Your task to perform on an android device: turn off notifications in google photos Image 0: 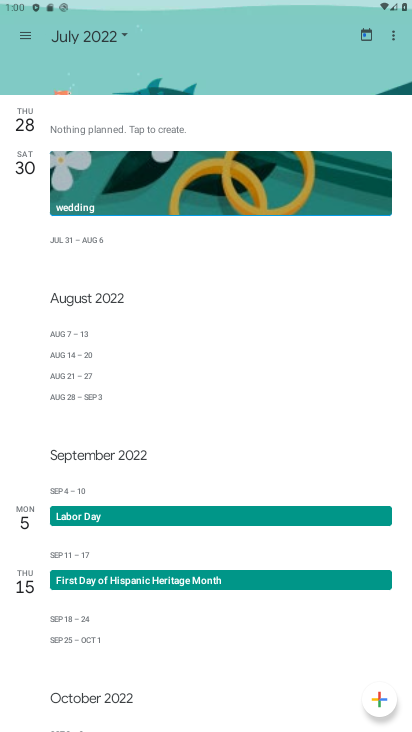
Step 0: press home button
Your task to perform on an android device: turn off notifications in google photos Image 1: 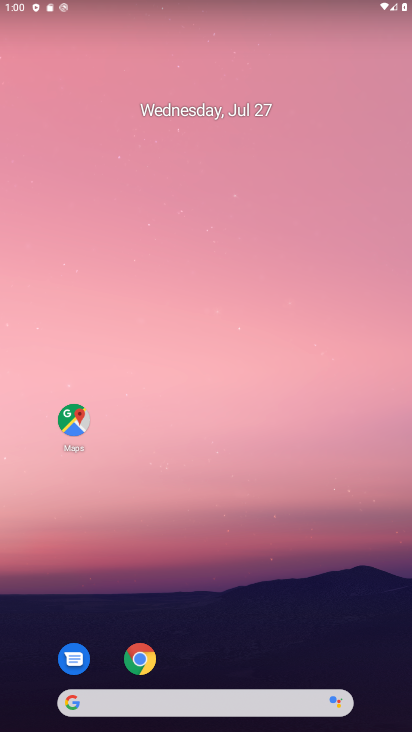
Step 1: drag from (305, 506) to (271, 10)
Your task to perform on an android device: turn off notifications in google photos Image 2: 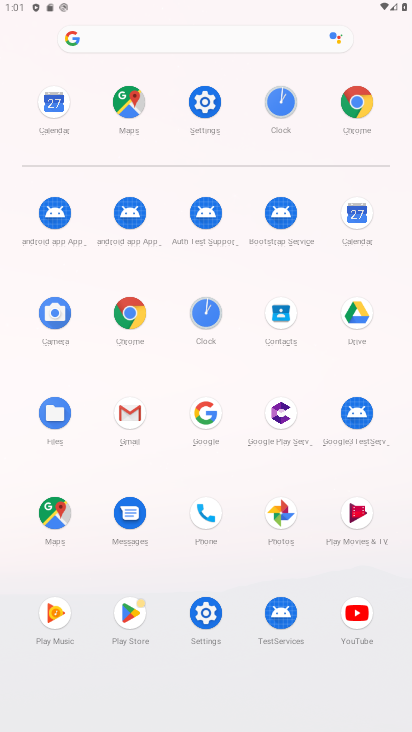
Step 2: click (278, 509)
Your task to perform on an android device: turn off notifications in google photos Image 3: 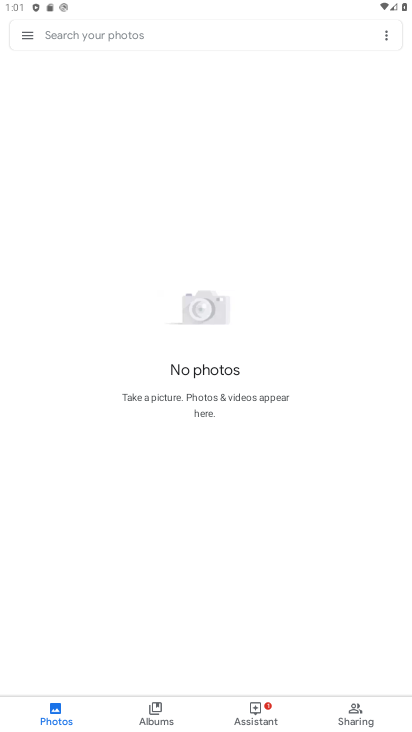
Step 3: click (24, 34)
Your task to perform on an android device: turn off notifications in google photos Image 4: 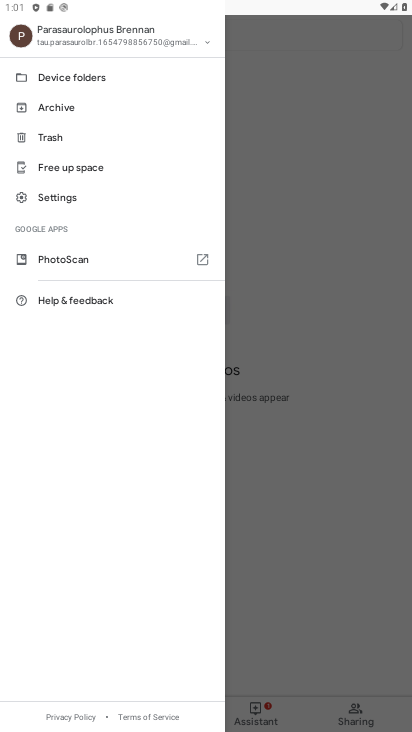
Step 4: click (54, 197)
Your task to perform on an android device: turn off notifications in google photos Image 5: 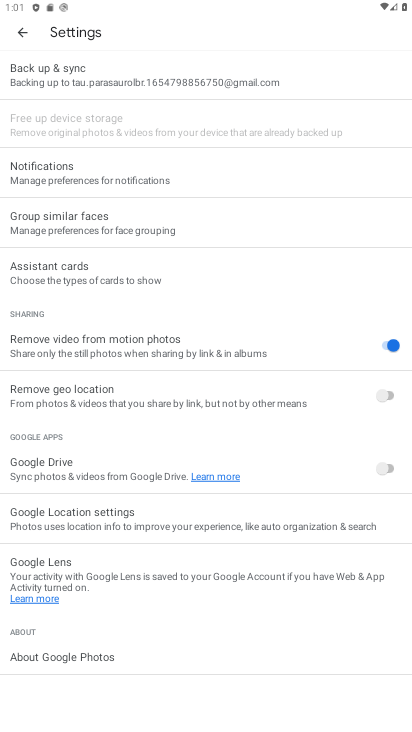
Step 5: click (72, 179)
Your task to perform on an android device: turn off notifications in google photos Image 6: 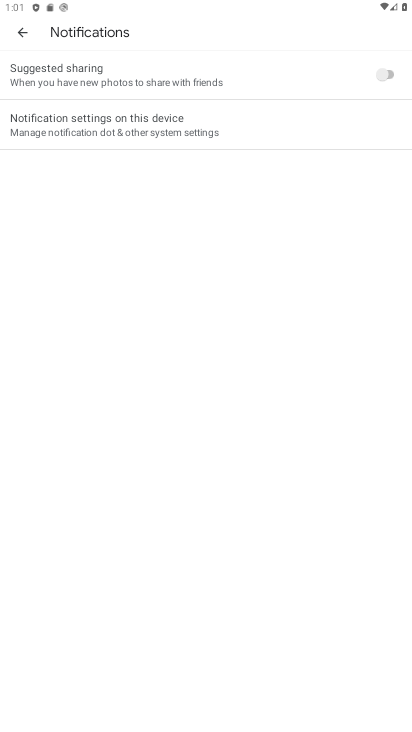
Step 6: click (85, 133)
Your task to perform on an android device: turn off notifications in google photos Image 7: 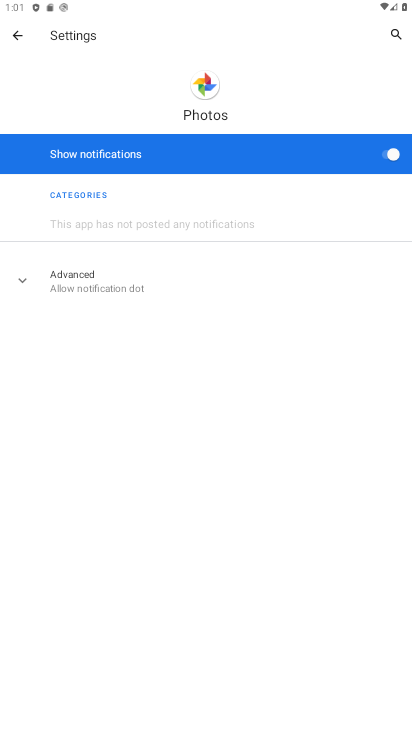
Step 7: click (399, 160)
Your task to perform on an android device: turn off notifications in google photos Image 8: 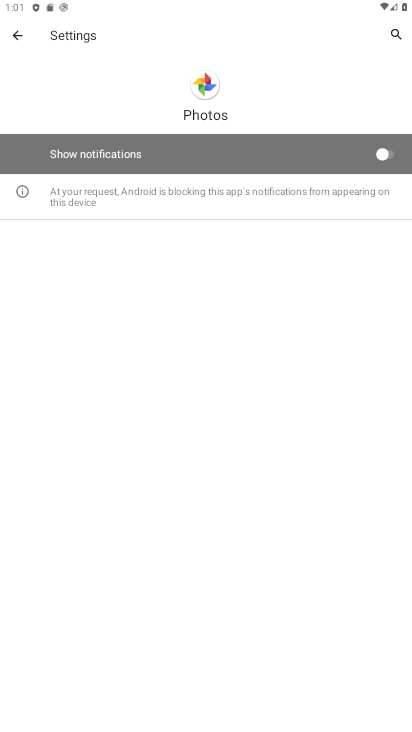
Step 8: task complete